Your task to perform on an android device: turn on notifications settings in the gmail app Image 0: 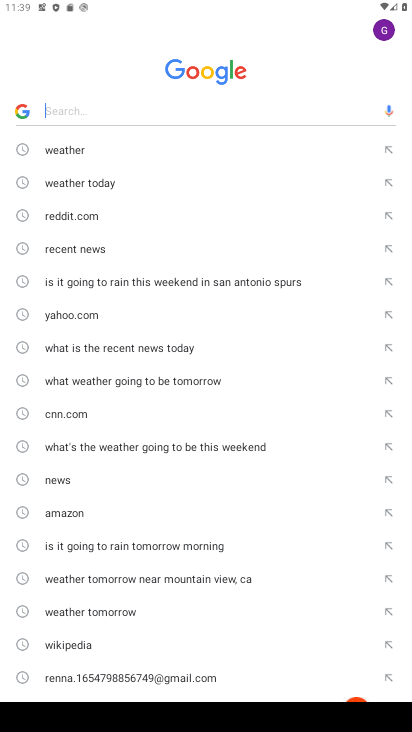
Step 0: press home button
Your task to perform on an android device: turn on notifications settings in the gmail app Image 1: 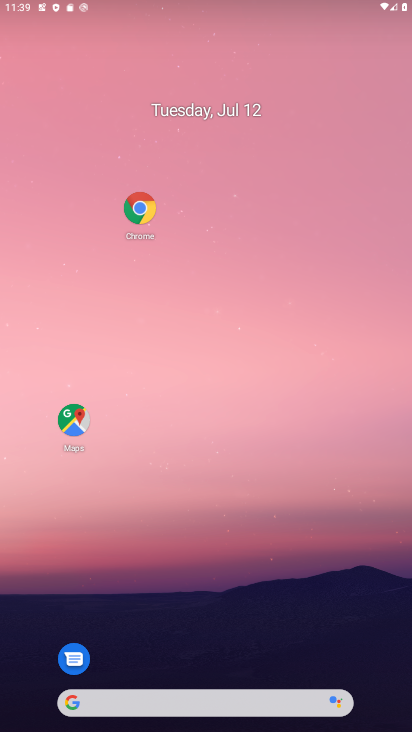
Step 1: drag from (341, 494) to (332, 0)
Your task to perform on an android device: turn on notifications settings in the gmail app Image 2: 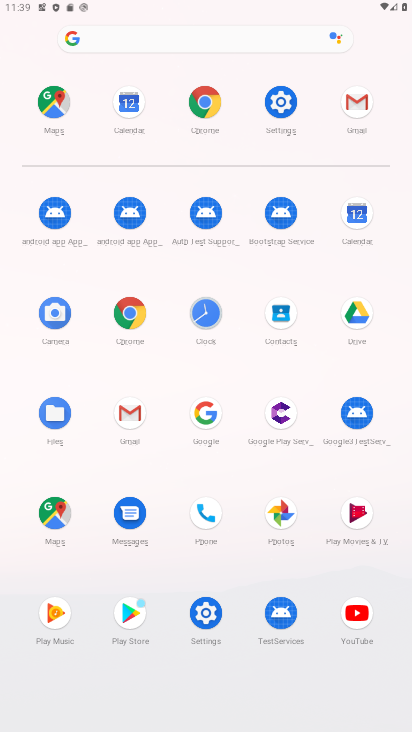
Step 2: click (137, 411)
Your task to perform on an android device: turn on notifications settings in the gmail app Image 3: 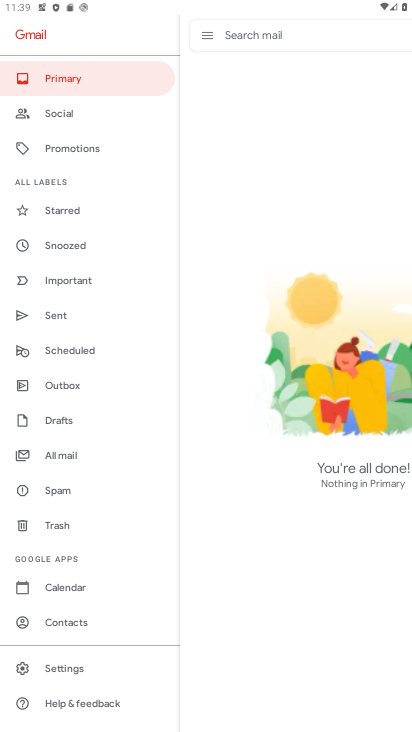
Step 3: click (72, 662)
Your task to perform on an android device: turn on notifications settings in the gmail app Image 4: 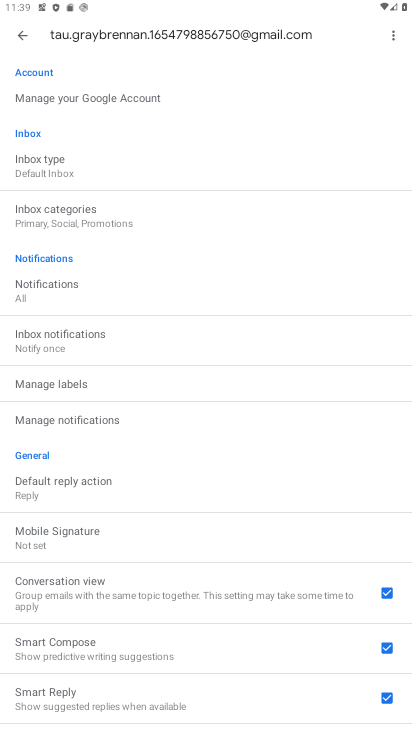
Step 4: click (128, 414)
Your task to perform on an android device: turn on notifications settings in the gmail app Image 5: 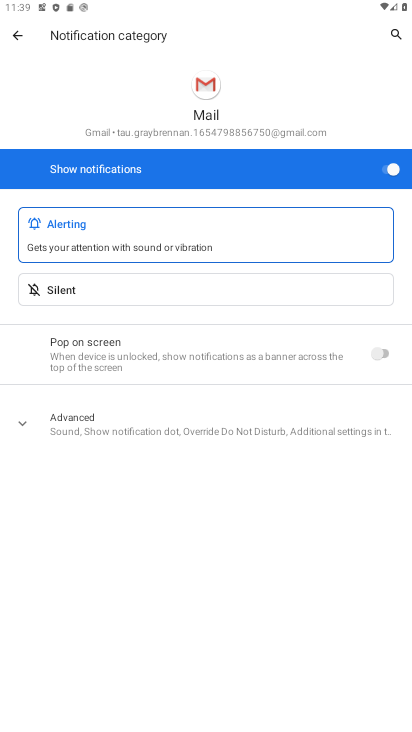
Step 5: click (123, 413)
Your task to perform on an android device: turn on notifications settings in the gmail app Image 6: 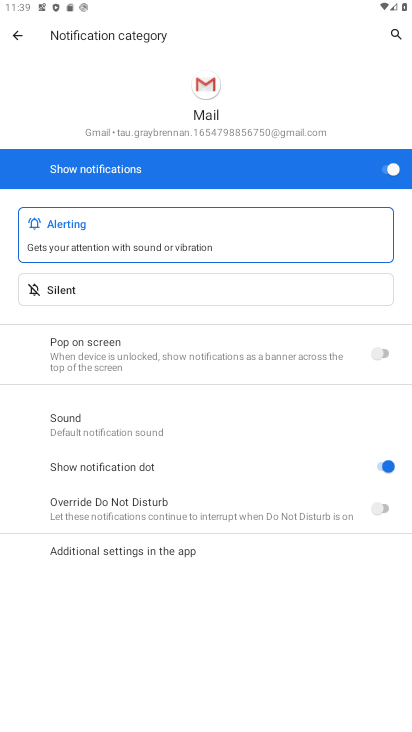
Step 6: task complete